Your task to perform on an android device: search for starred emails in the gmail app Image 0: 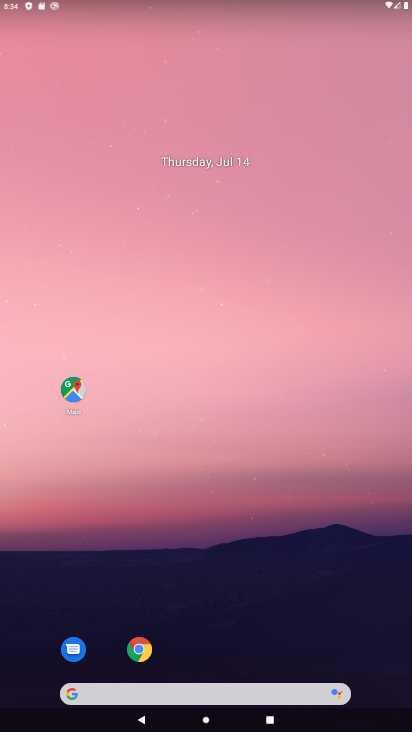
Step 0: drag from (233, 626) to (223, 87)
Your task to perform on an android device: search for starred emails in the gmail app Image 1: 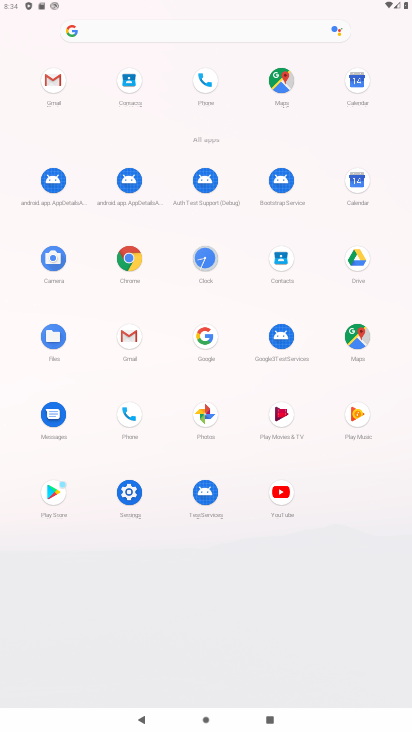
Step 1: click (66, 85)
Your task to perform on an android device: search for starred emails in the gmail app Image 2: 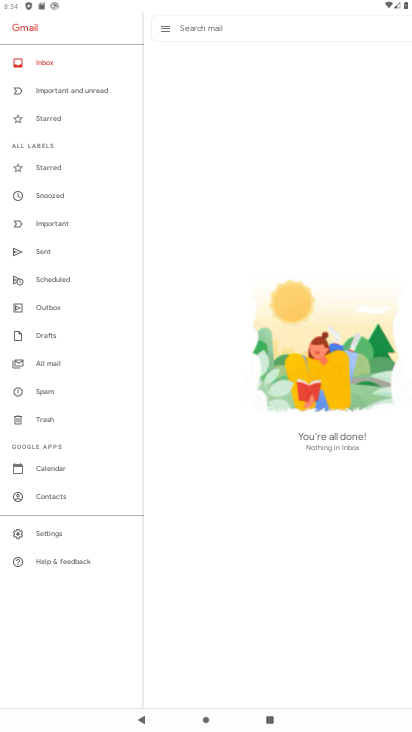
Step 2: click (55, 121)
Your task to perform on an android device: search for starred emails in the gmail app Image 3: 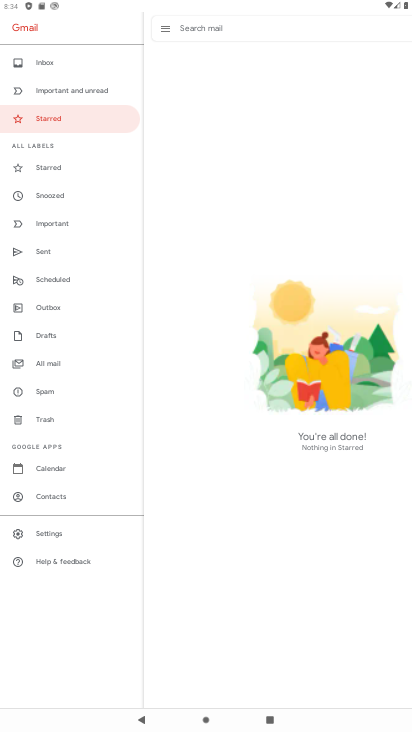
Step 3: task complete